Your task to perform on an android device: find which apps use the phone's location Image 0: 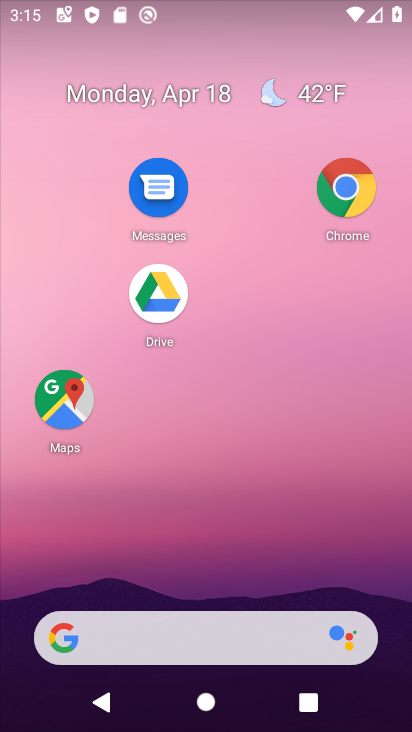
Step 0: drag from (254, 511) to (322, 34)
Your task to perform on an android device: find which apps use the phone's location Image 1: 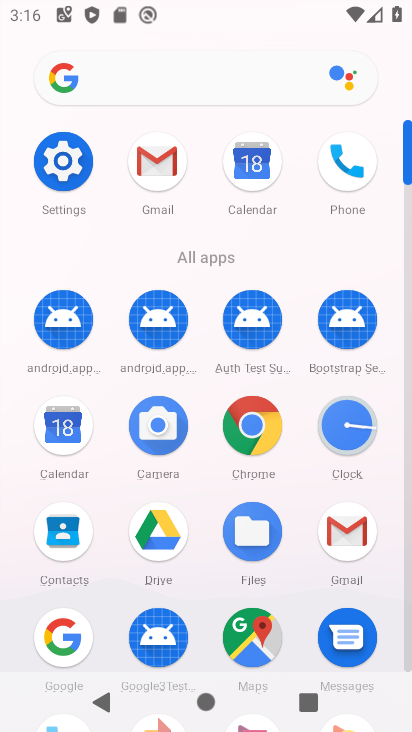
Step 1: click (68, 169)
Your task to perform on an android device: find which apps use the phone's location Image 2: 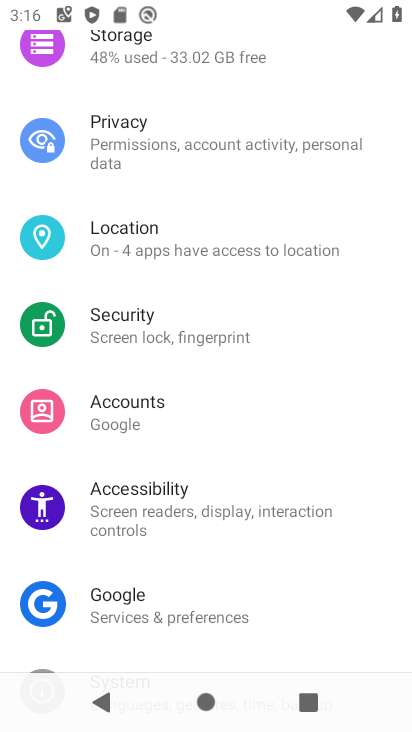
Step 2: click (158, 242)
Your task to perform on an android device: find which apps use the phone's location Image 3: 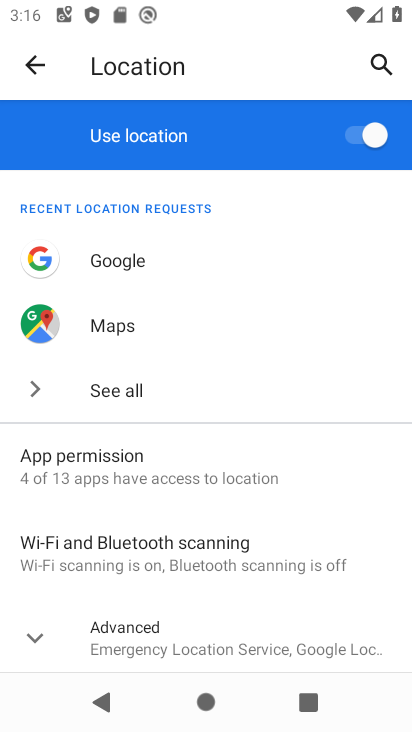
Step 3: click (104, 462)
Your task to perform on an android device: find which apps use the phone's location Image 4: 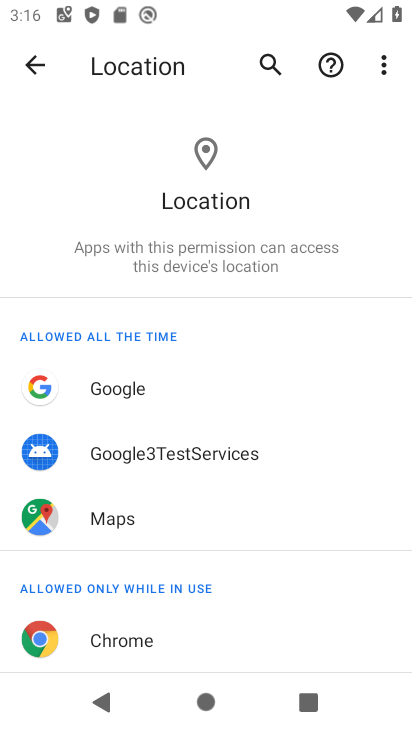
Step 4: click (115, 508)
Your task to perform on an android device: find which apps use the phone's location Image 5: 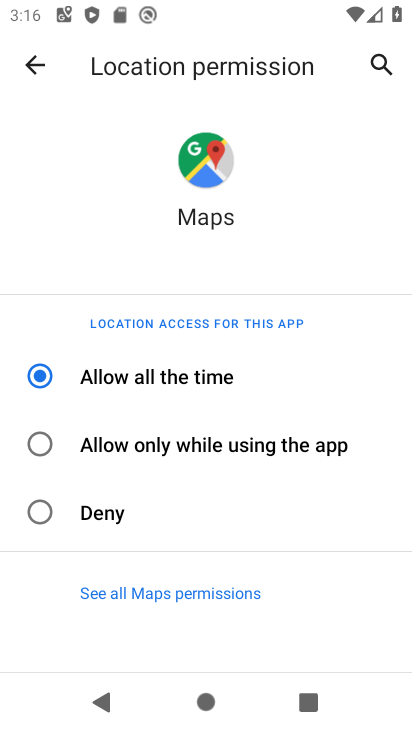
Step 5: task complete